Your task to perform on an android device: Open Chrome and go to the settings page Image 0: 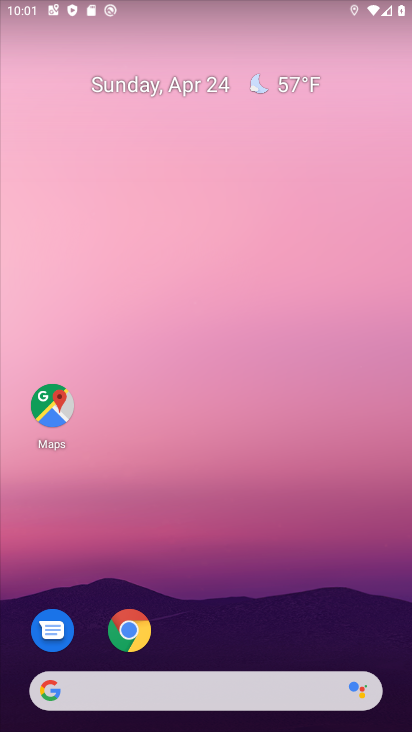
Step 0: click (129, 627)
Your task to perform on an android device: Open Chrome and go to the settings page Image 1: 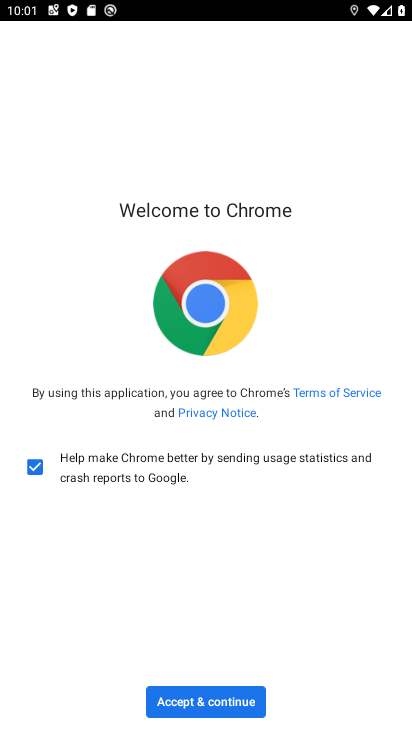
Step 1: click (183, 699)
Your task to perform on an android device: Open Chrome and go to the settings page Image 2: 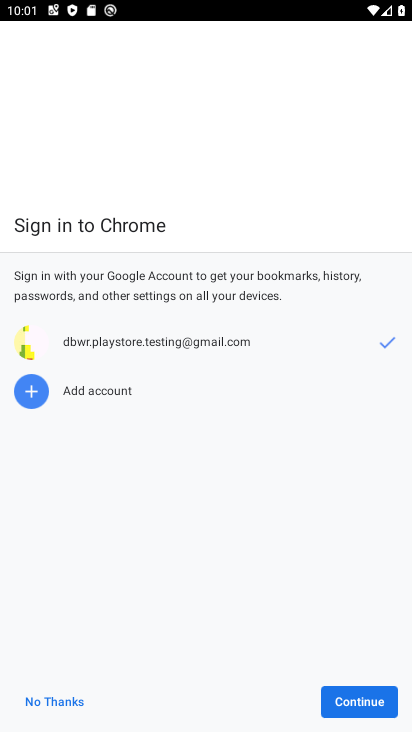
Step 2: click (352, 700)
Your task to perform on an android device: Open Chrome and go to the settings page Image 3: 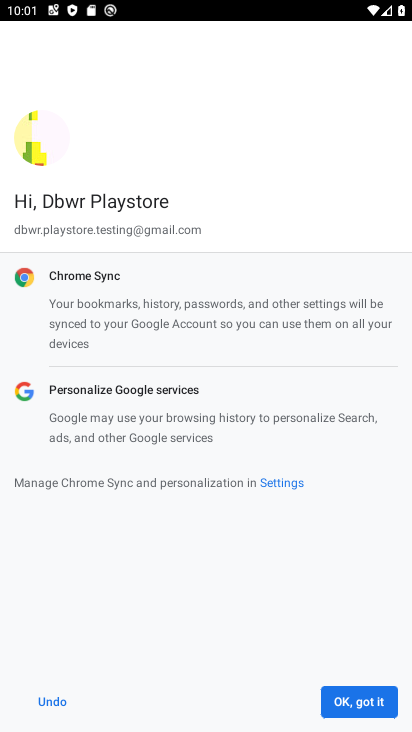
Step 3: click (352, 700)
Your task to perform on an android device: Open Chrome and go to the settings page Image 4: 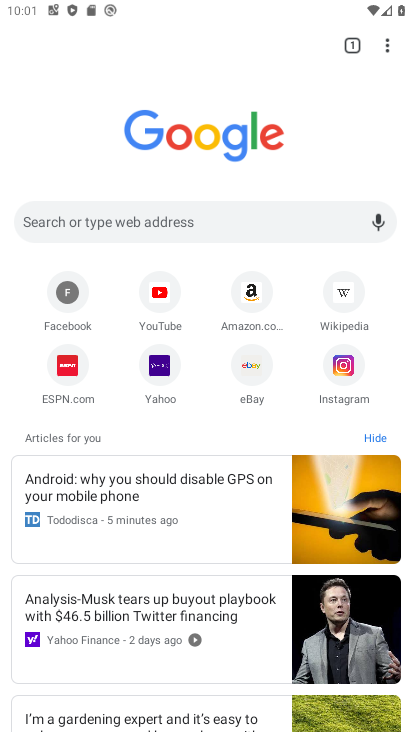
Step 4: click (388, 43)
Your task to perform on an android device: Open Chrome and go to the settings page Image 5: 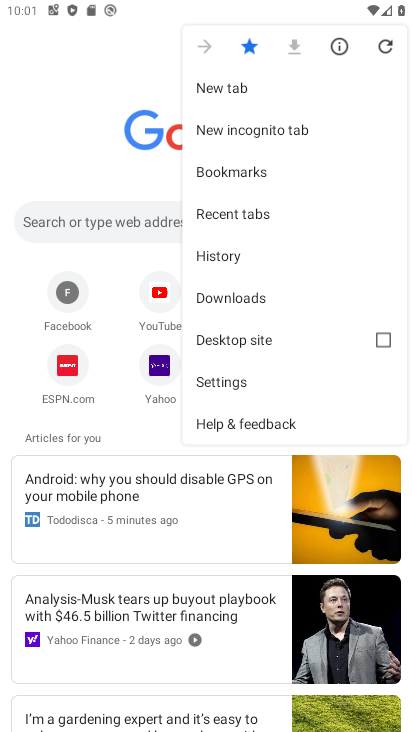
Step 5: click (228, 385)
Your task to perform on an android device: Open Chrome and go to the settings page Image 6: 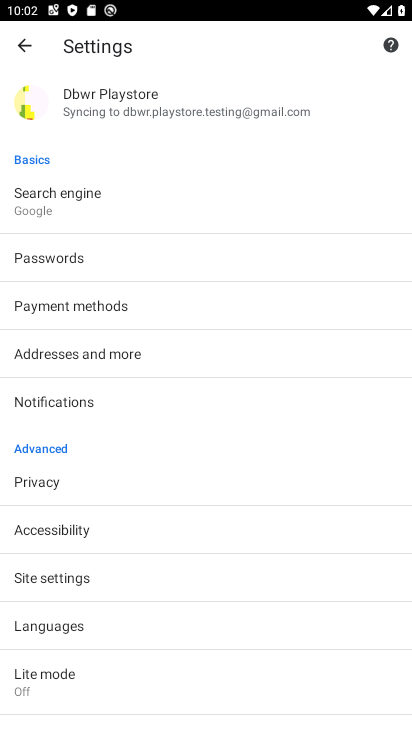
Step 6: task complete